Your task to perform on an android device: turn off location Image 0: 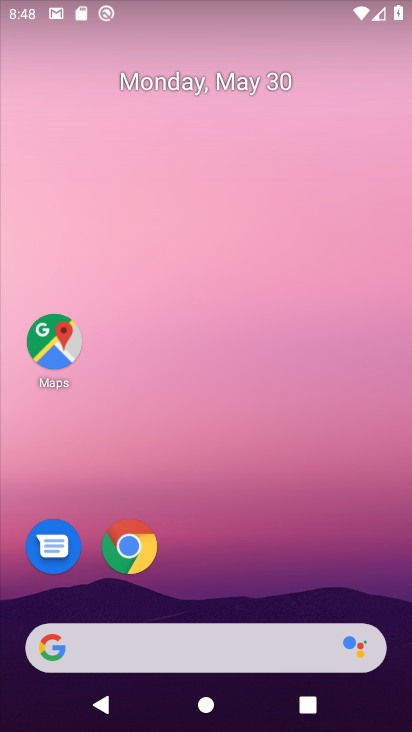
Step 0: drag from (254, 523) to (192, 149)
Your task to perform on an android device: turn off location Image 1: 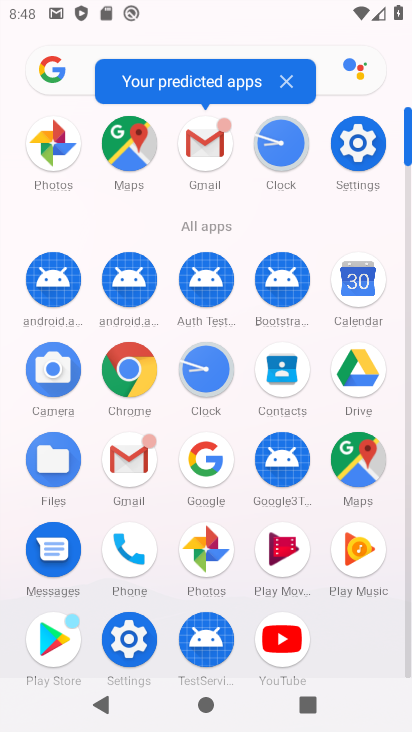
Step 1: click (355, 137)
Your task to perform on an android device: turn off location Image 2: 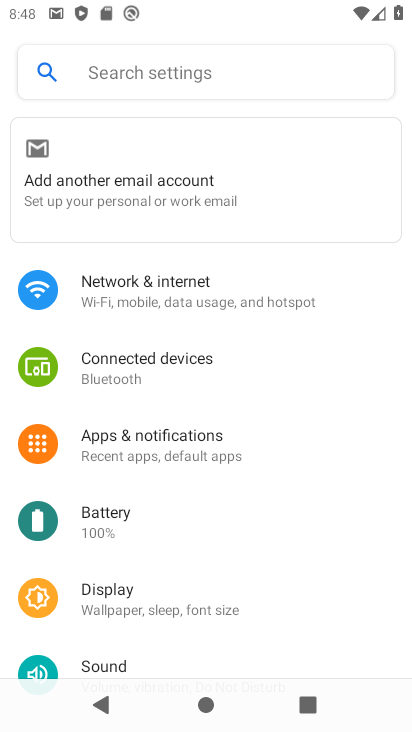
Step 2: drag from (198, 522) to (138, 275)
Your task to perform on an android device: turn off location Image 3: 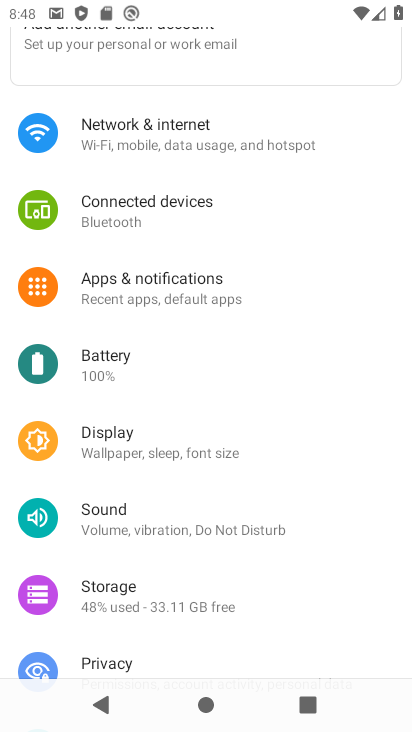
Step 3: drag from (251, 562) to (249, 274)
Your task to perform on an android device: turn off location Image 4: 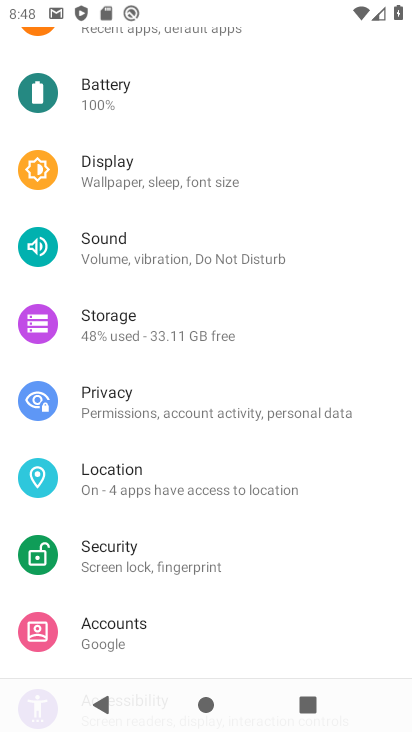
Step 4: click (111, 466)
Your task to perform on an android device: turn off location Image 5: 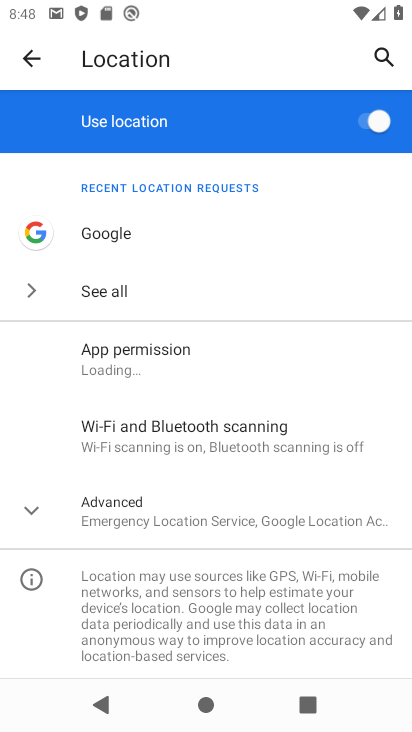
Step 5: click (361, 117)
Your task to perform on an android device: turn off location Image 6: 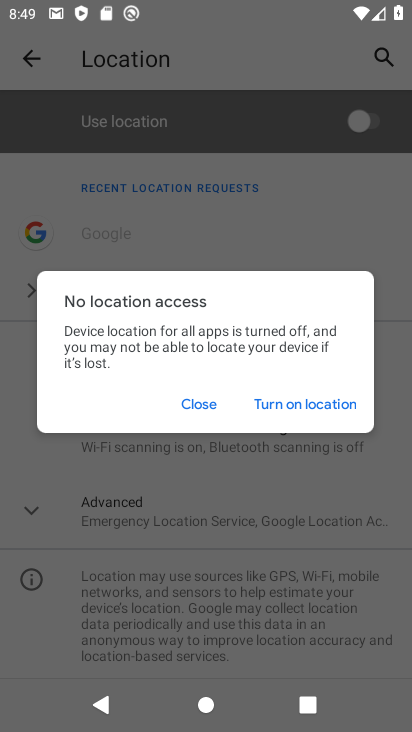
Step 6: task complete